Your task to perform on an android device: What is the news today? Image 0: 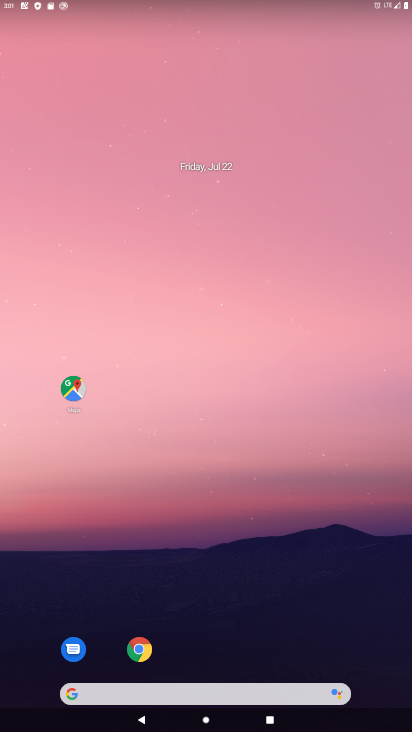
Step 0: drag from (232, 645) to (234, 191)
Your task to perform on an android device: What is the news today? Image 1: 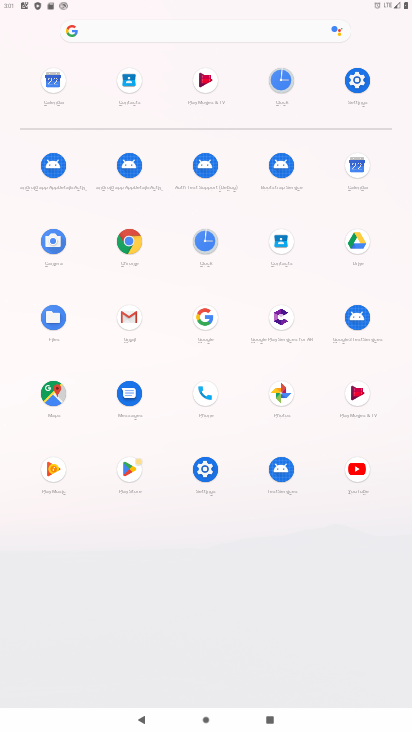
Step 1: click (176, 40)
Your task to perform on an android device: What is the news today? Image 2: 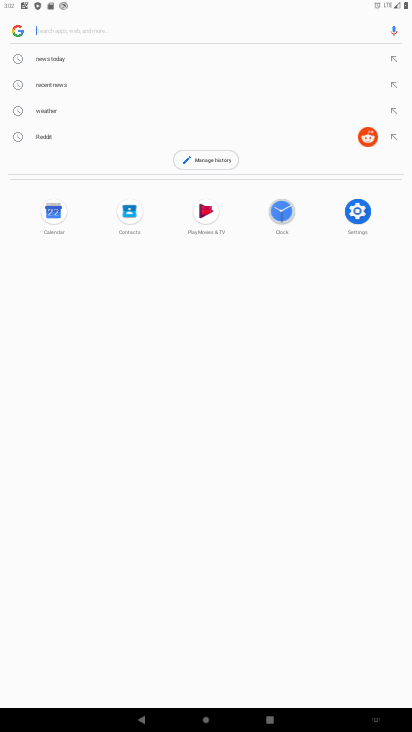
Step 2: click (49, 60)
Your task to perform on an android device: What is the news today? Image 3: 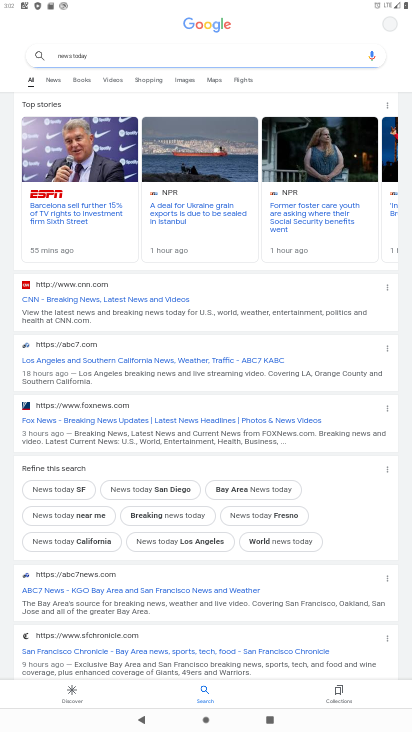
Step 3: task complete